Your task to perform on an android device: Open location settings Image 0: 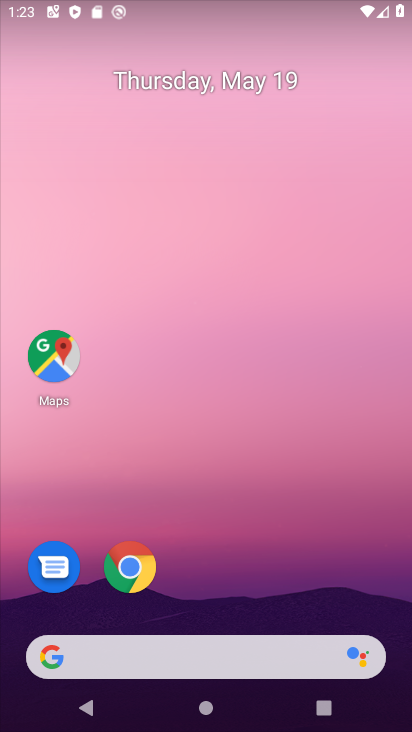
Step 0: drag from (33, 543) to (218, 129)
Your task to perform on an android device: Open location settings Image 1: 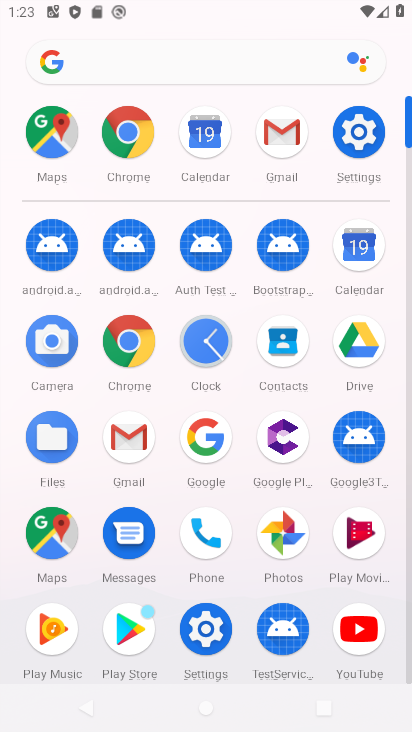
Step 1: click (334, 143)
Your task to perform on an android device: Open location settings Image 2: 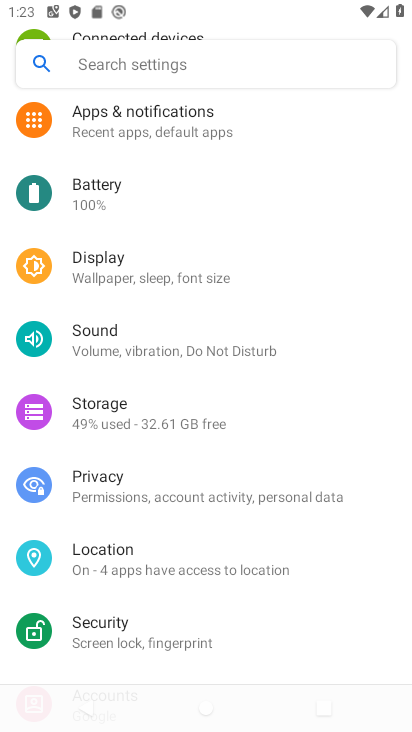
Step 2: click (97, 574)
Your task to perform on an android device: Open location settings Image 3: 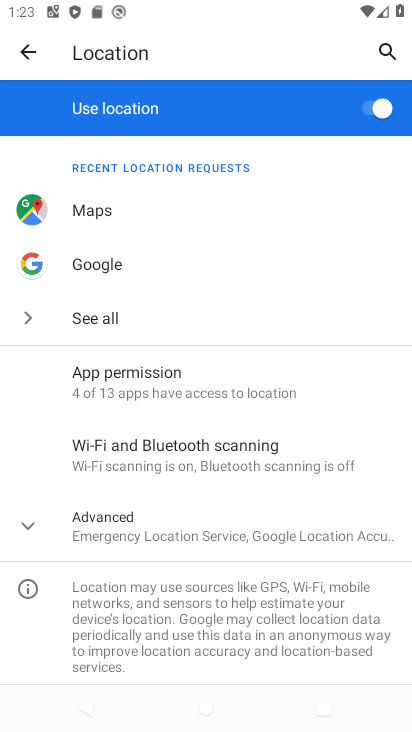
Step 3: task complete